Your task to perform on an android device: turn pop-ups off in chrome Image 0: 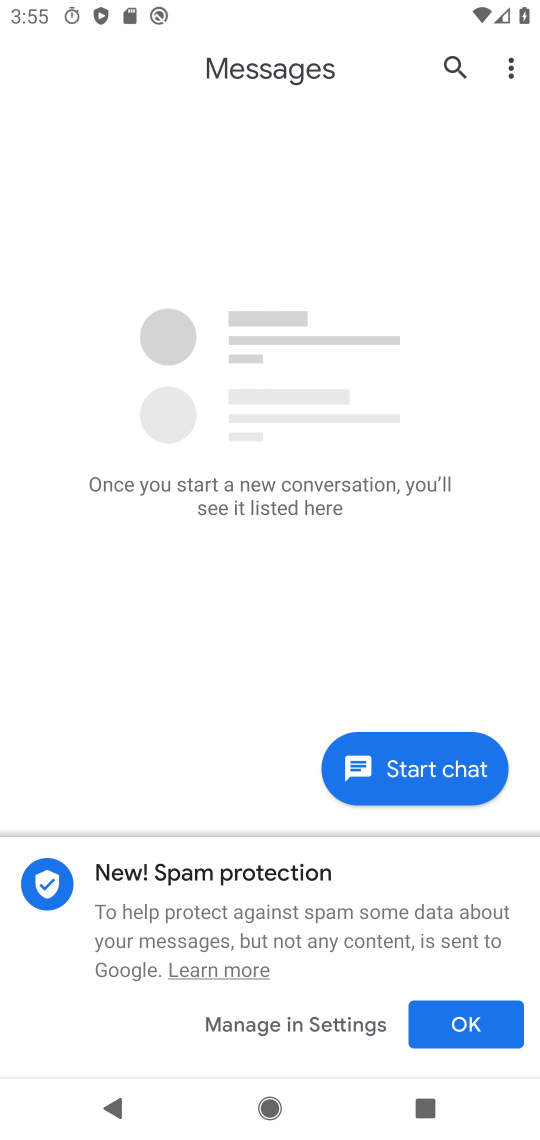
Step 0: press home button
Your task to perform on an android device: turn pop-ups off in chrome Image 1: 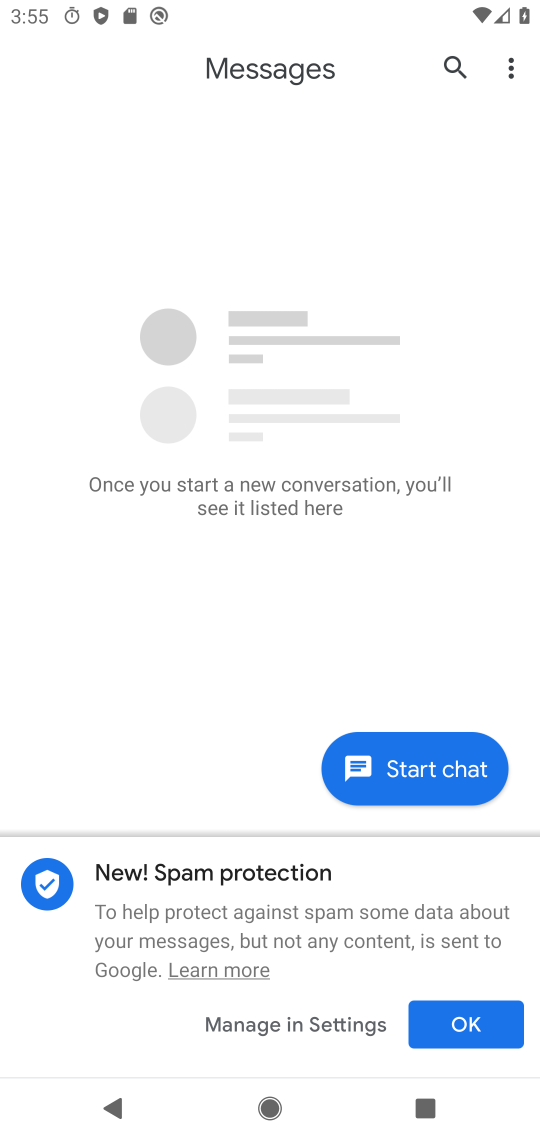
Step 1: press home button
Your task to perform on an android device: turn pop-ups off in chrome Image 2: 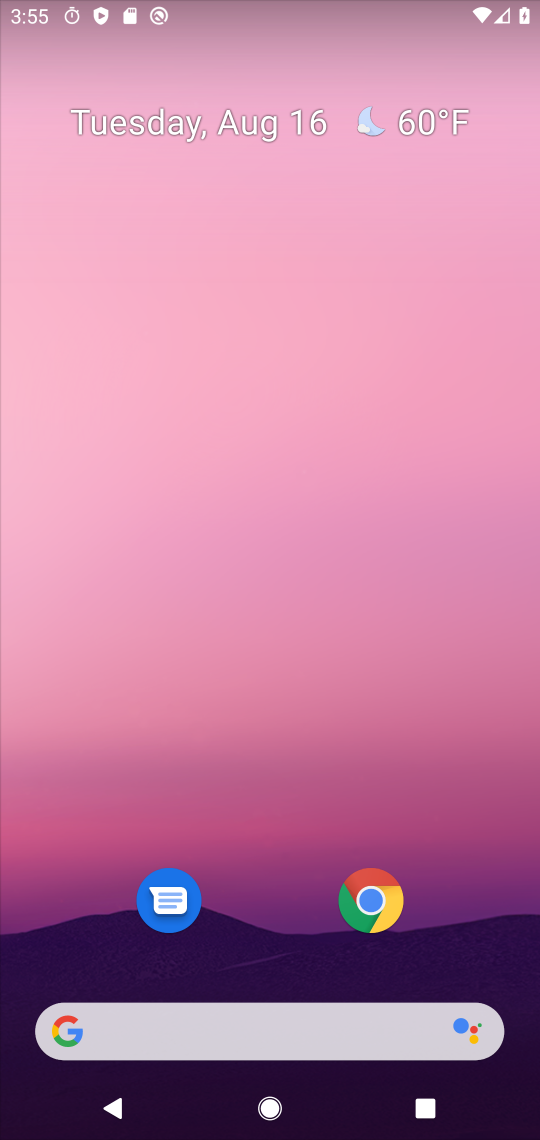
Step 2: click (375, 907)
Your task to perform on an android device: turn pop-ups off in chrome Image 3: 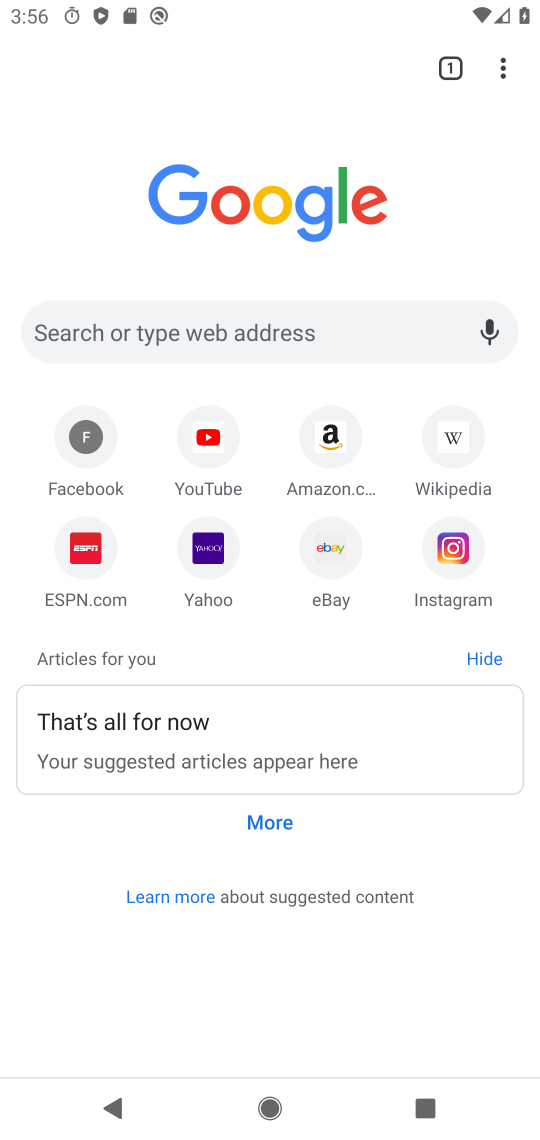
Step 3: drag from (502, 73) to (260, 634)
Your task to perform on an android device: turn pop-ups off in chrome Image 4: 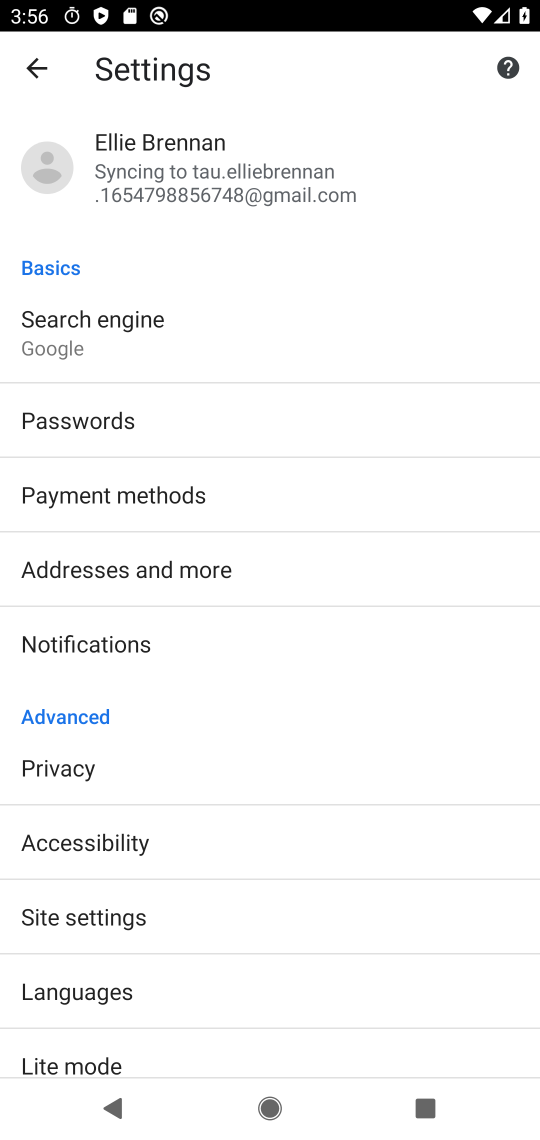
Step 4: click (93, 918)
Your task to perform on an android device: turn pop-ups off in chrome Image 5: 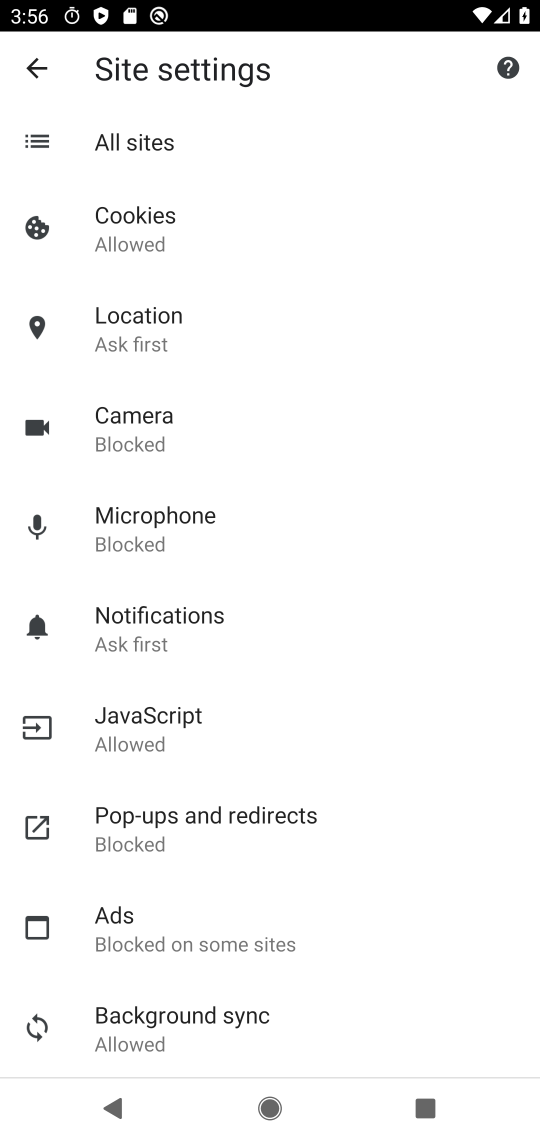
Step 5: click (154, 825)
Your task to perform on an android device: turn pop-ups off in chrome Image 6: 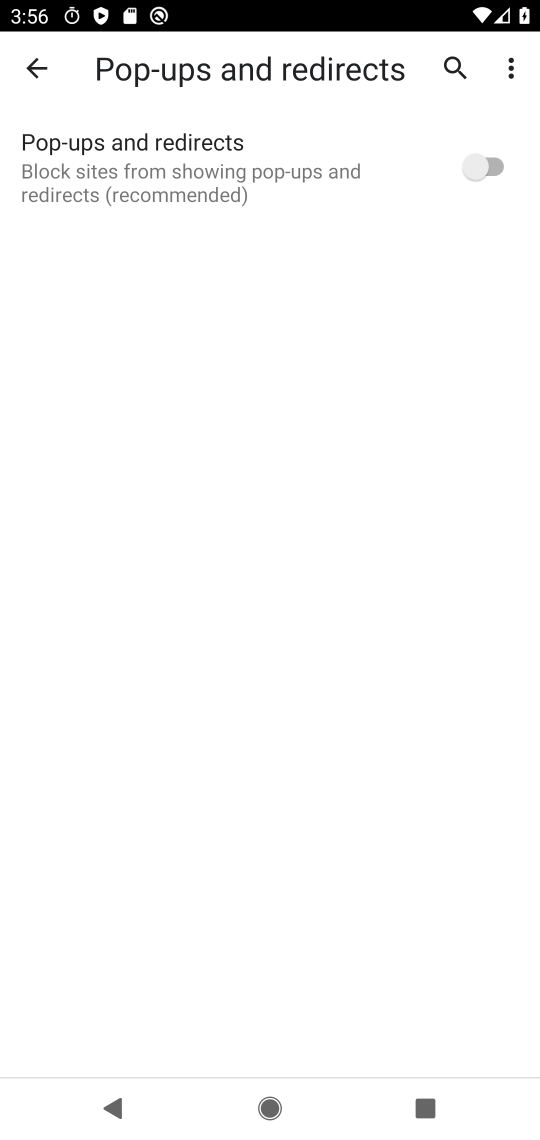
Step 6: task complete